Your task to perform on an android device: Open Google Image 0: 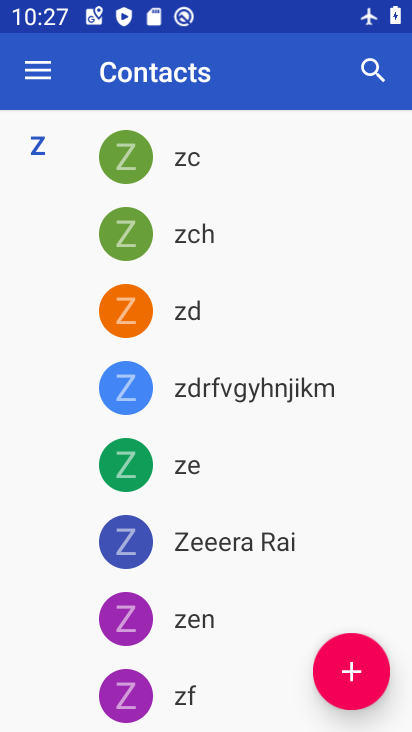
Step 0: press home button
Your task to perform on an android device: Open Google Image 1: 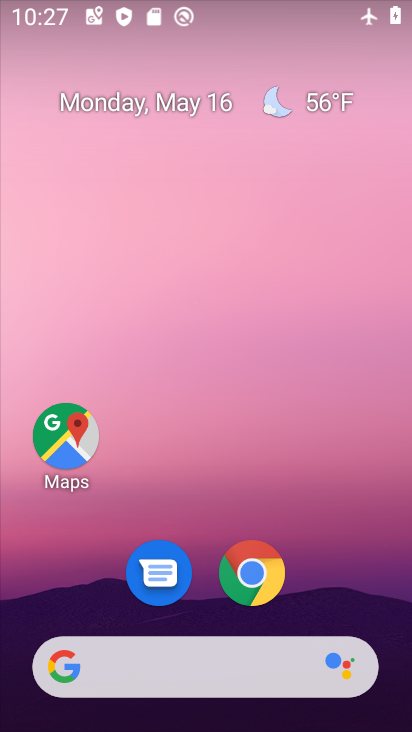
Step 1: drag from (253, 726) to (289, 197)
Your task to perform on an android device: Open Google Image 2: 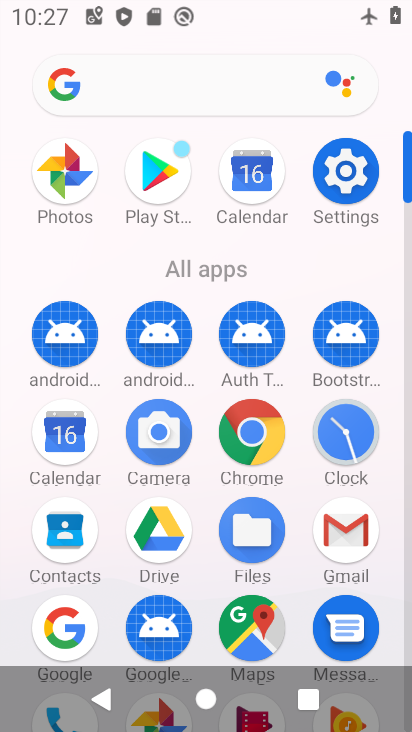
Step 2: click (77, 604)
Your task to perform on an android device: Open Google Image 3: 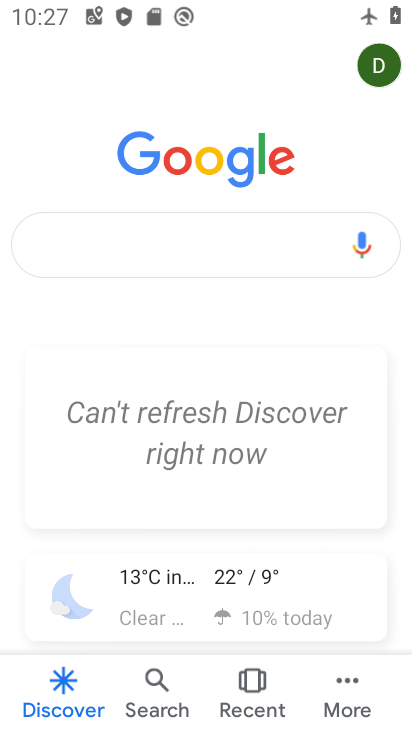
Step 3: task complete